Your task to perform on an android device: Open ESPN.com Image 0: 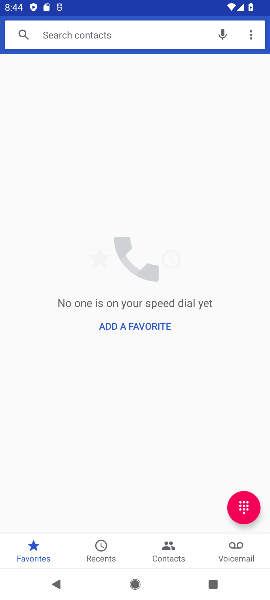
Step 0: press home button
Your task to perform on an android device: Open ESPN.com Image 1: 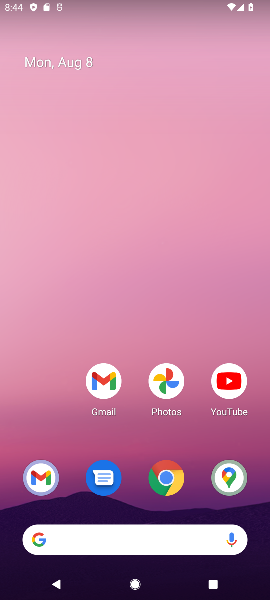
Step 1: click (167, 480)
Your task to perform on an android device: Open ESPN.com Image 2: 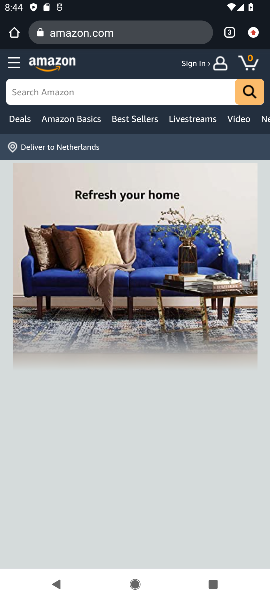
Step 2: drag from (250, 35) to (173, 104)
Your task to perform on an android device: Open ESPN.com Image 3: 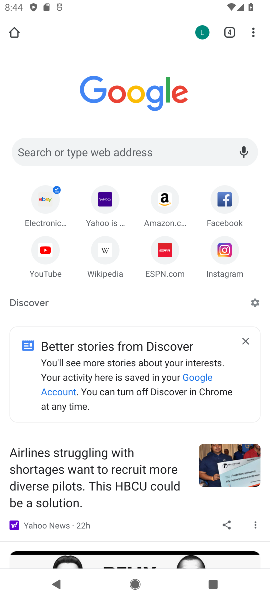
Step 3: click (164, 245)
Your task to perform on an android device: Open ESPN.com Image 4: 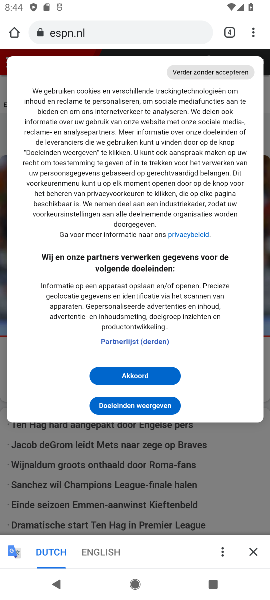
Step 4: click (105, 551)
Your task to perform on an android device: Open ESPN.com Image 5: 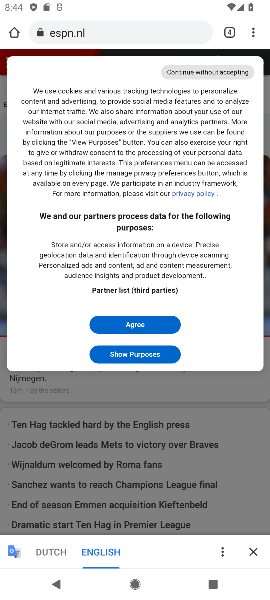
Step 5: click (134, 321)
Your task to perform on an android device: Open ESPN.com Image 6: 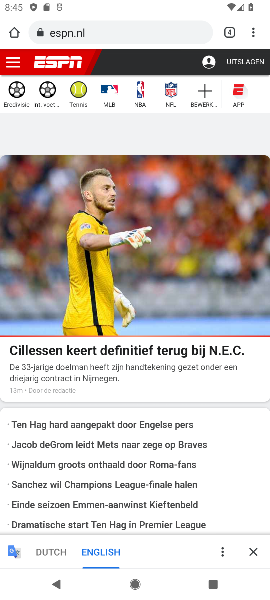
Step 6: task complete